Your task to perform on an android device: toggle priority inbox in the gmail app Image 0: 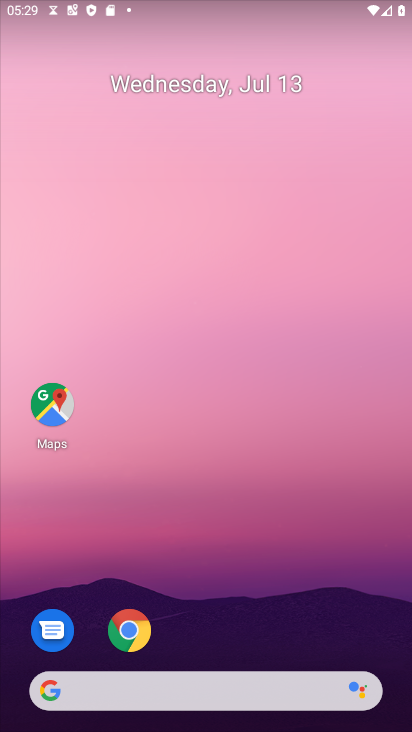
Step 0: drag from (226, 678) to (241, 128)
Your task to perform on an android device: toggle priority inbox in the gmail app Image 1: 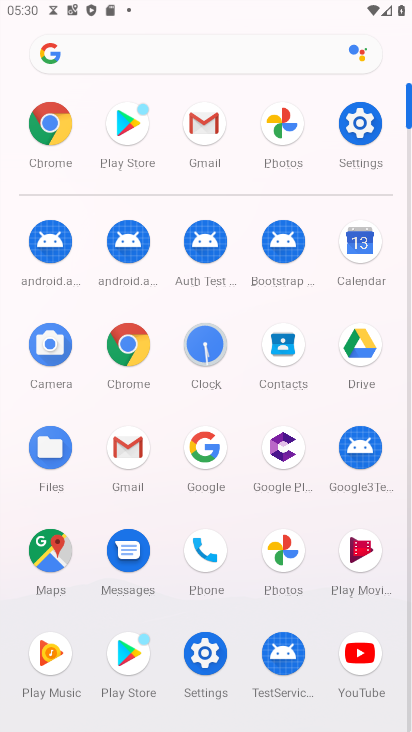
Step 1: click (129, 448)
Your task to perform on an android device: toggle priority inbox in the gmail app Image 2: 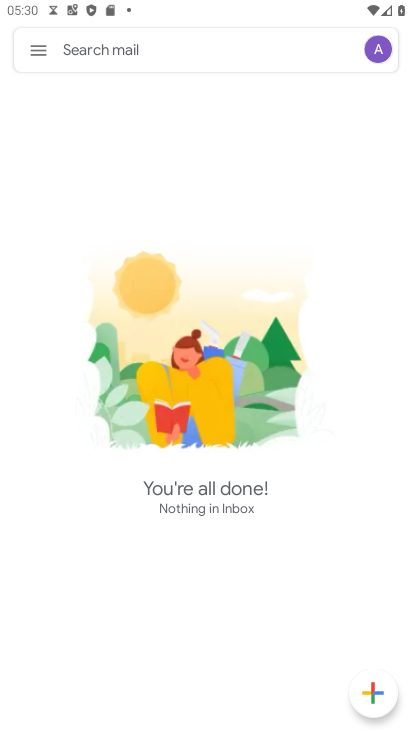
Step 2: click (42, 49)
Your task to perform on an android device: toggle priority inbox in the gmail app Image 3: 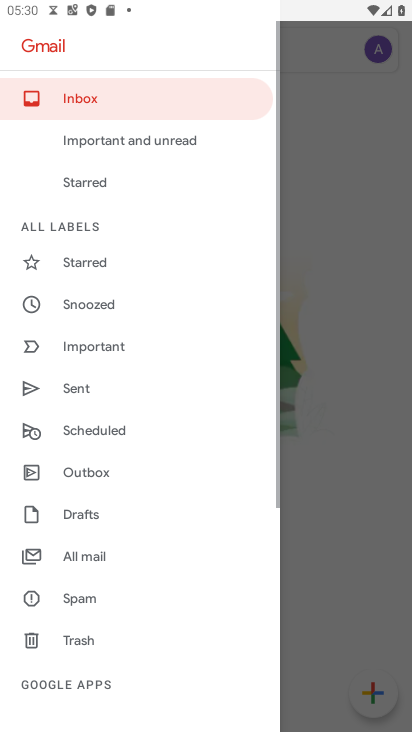
Step 3: drag from (94, 619) to (138, 250)
Your task to perform on an android device: toggle priority inbox in the gmail app Image 4: 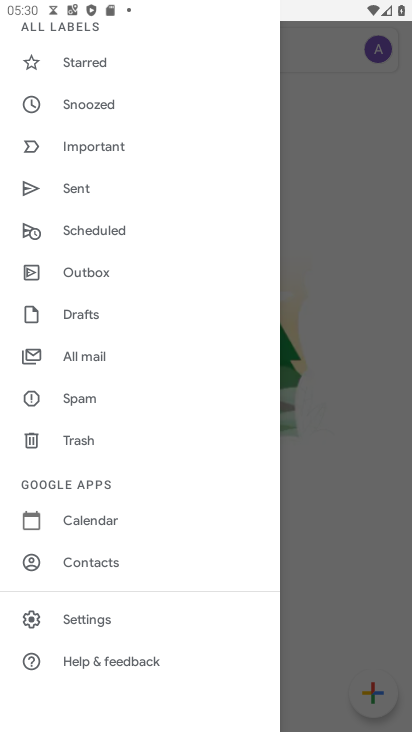
Step 4: click (106, 616)
Your task to perform on an android device: toggle priority inbox in the gmail app Image 5: 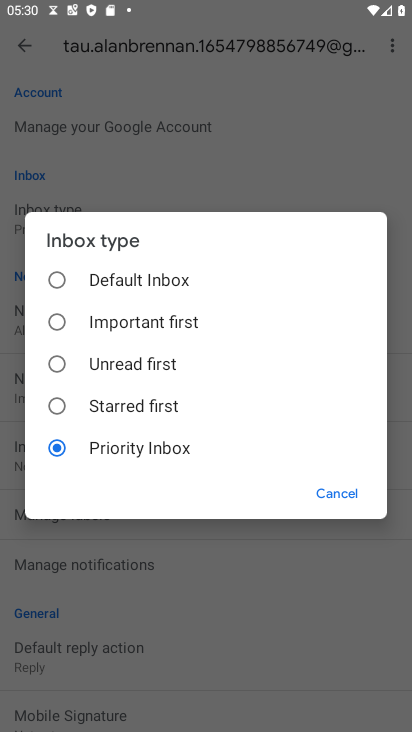
Step 5: click (51, 286)
Your task to perform on an android device: toggle priority inbox in the gmail app Image 6: 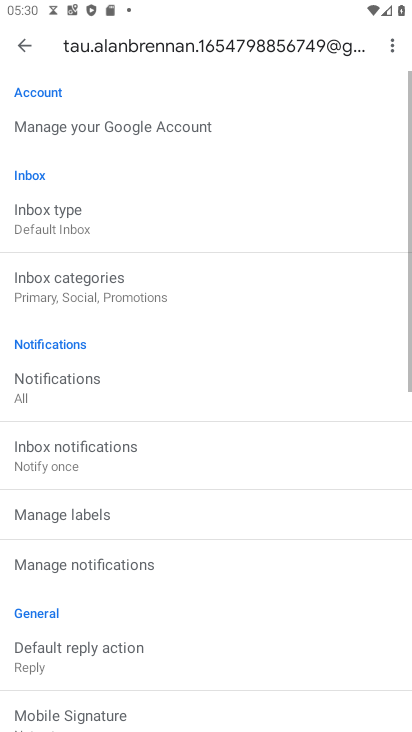
Step 6: task complete